Your task to perform on an android device: change the clock style Image 0: 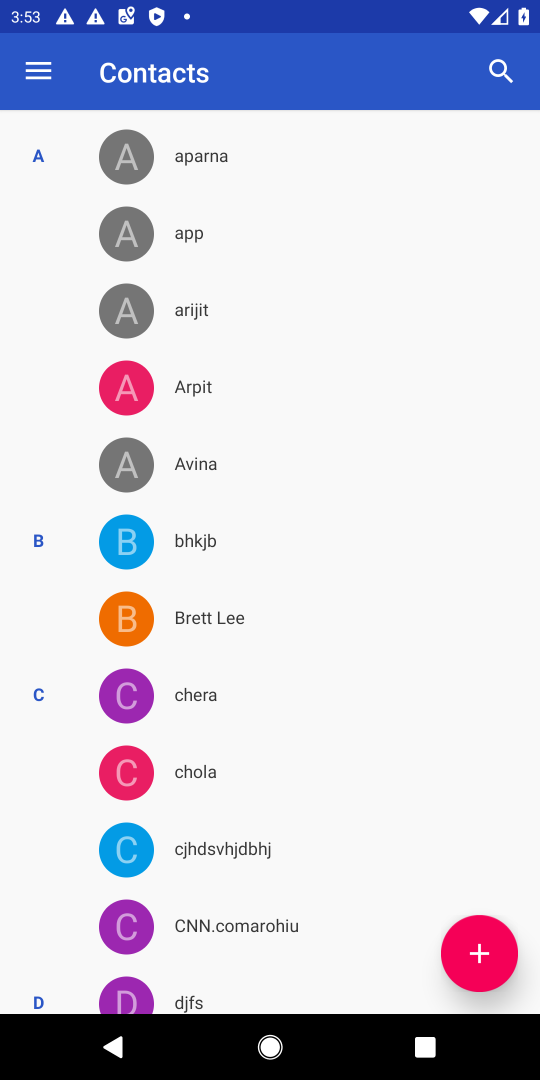
Step 0: press home button
Your task to perform on an android device: change the clock style Image 1: 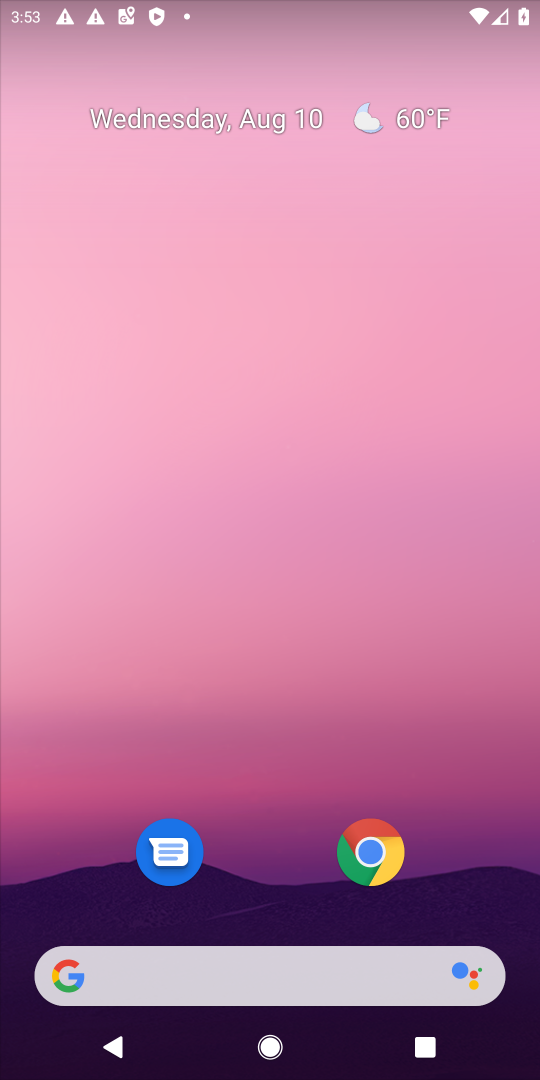
Step 1: drag from (281, 761) to (358, 136)
Your task to perform on an android device: change the clock style Image 2: 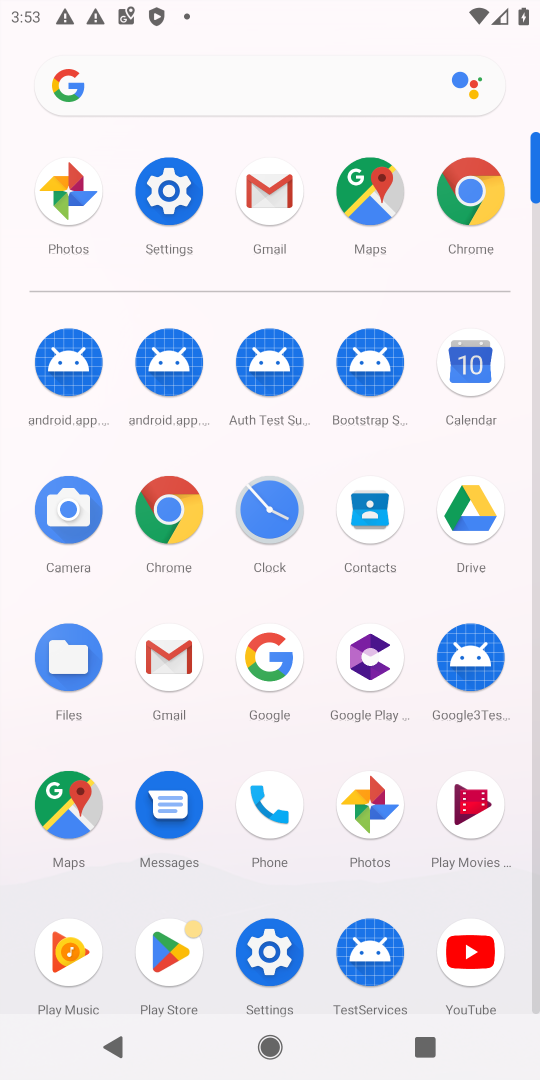
Step 2: click (279, 500)
Your task to perform on an android device: change the clock style Image 3: 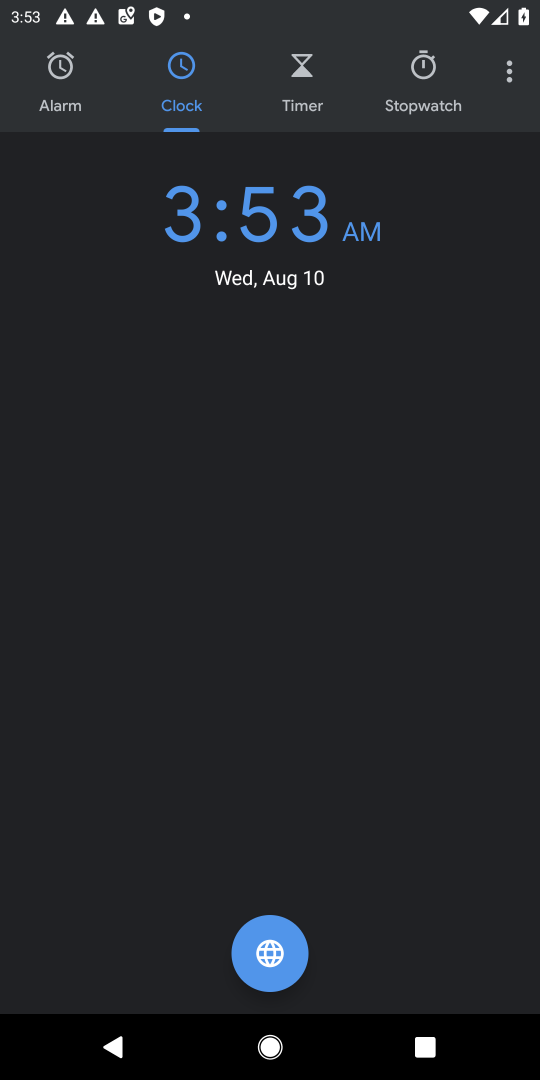
Step 3: click (508, 88)
Your task to perform on an android device: change the clock style Image 4: 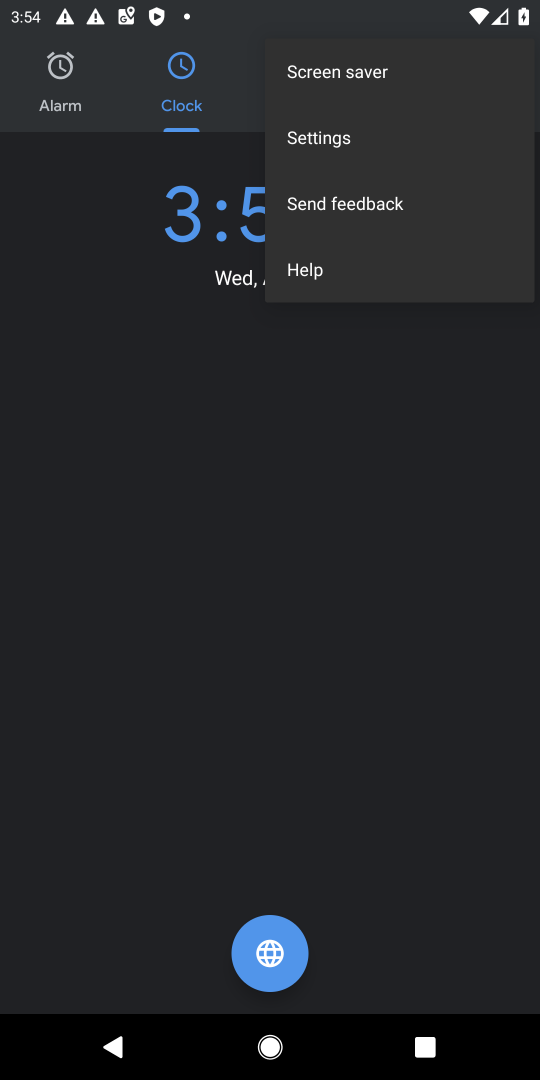
Step 4: click (318, 132)
Your task to perform on an android device: change the clock style Image 5: 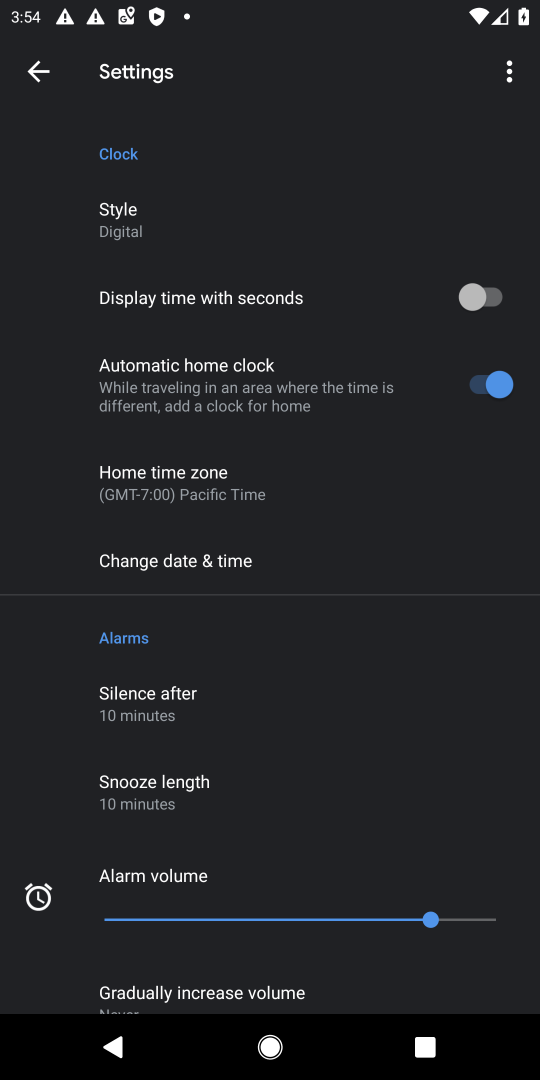
Step 5: click (157, 223)
Your task to perform on an android device: change the clock style Image 6: 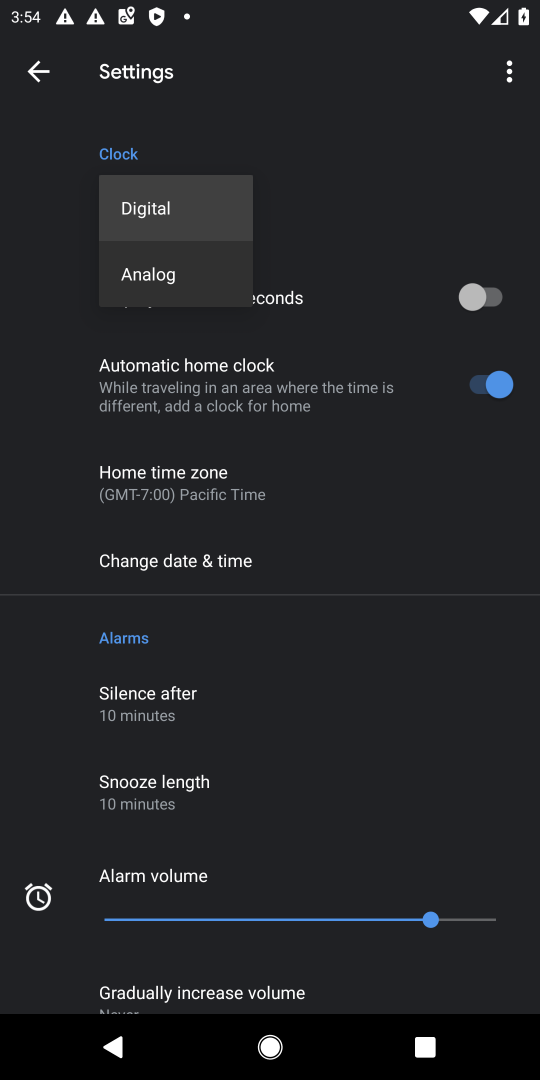
Step 6: click (159, 277)
Your task to perform on an android device: change the clock style Image 7: 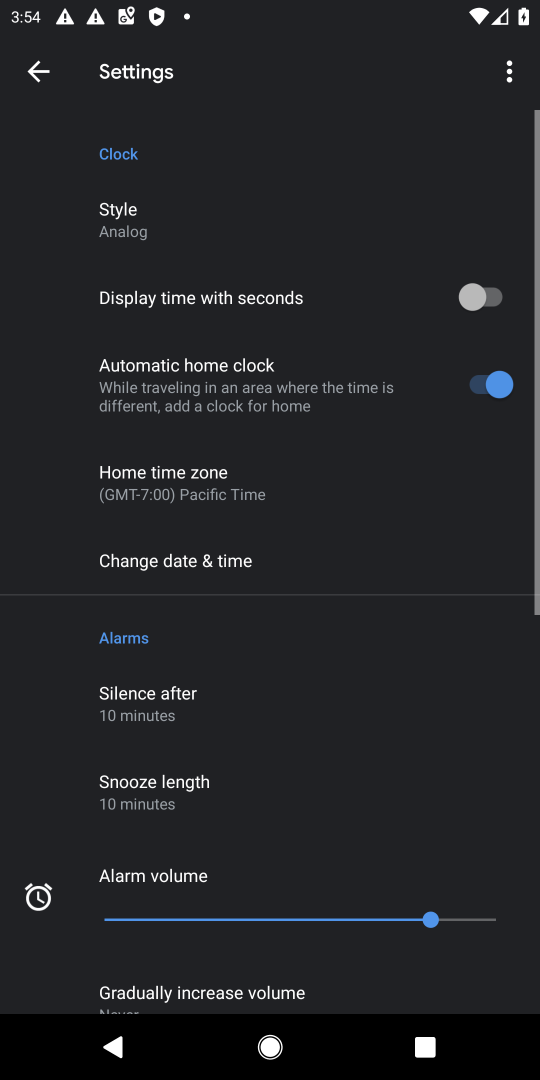
Step 7: task complete